Your task to perform on an android device: add a label to a message in the gmail app Image 0: 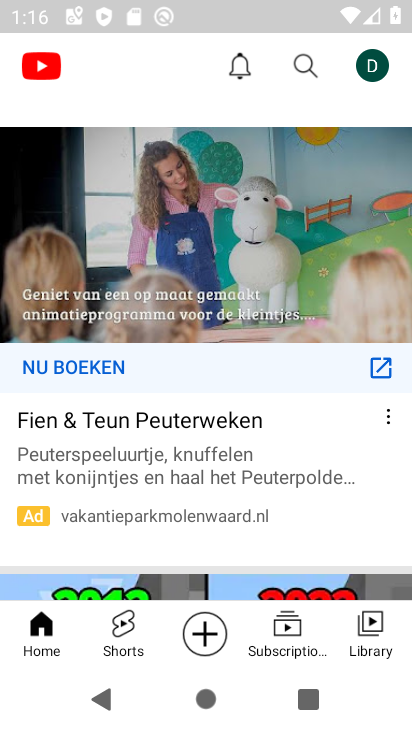
Step 0: press home button
Your task to perform on an android device: add a label to a message in the gmail app Image 1: 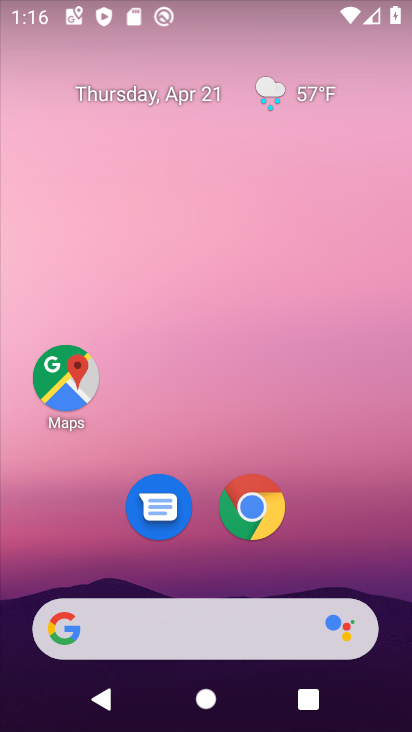
Step 1: drag from (325, 516) to (293, 45)
Your task to perform on an android device: add a label to a message in the gmail app Image 2: 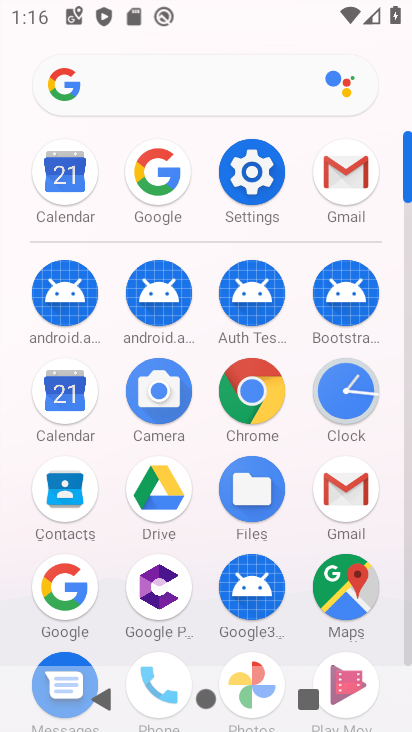
Step 2: click (345, 175)
Your task to perform on an android device: add a label to a message in the gmail app Image 3: 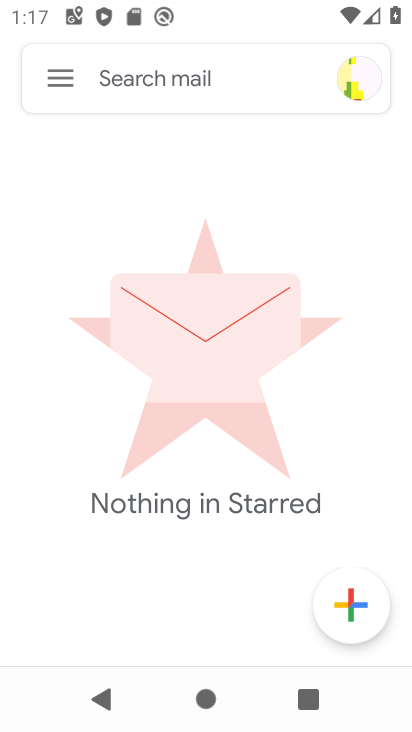
Step 3: click (59, 79)
Your task to perform on an android device: add a label to a message in the gmail app Image 4: 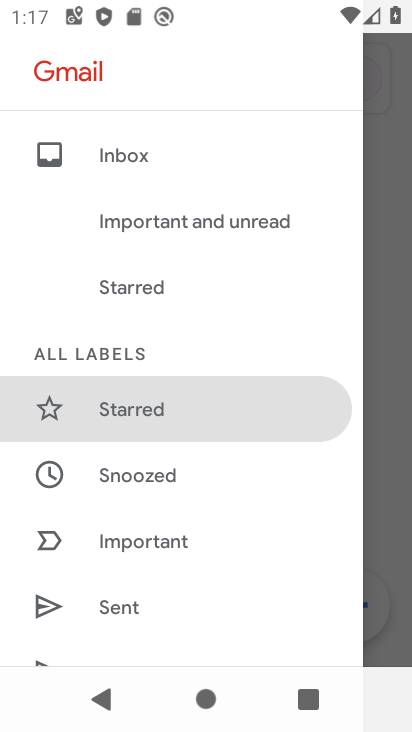
Step 4: click (109, 155)
Your task to perform on an android device: add a label to a message in the gmail app Image 5: 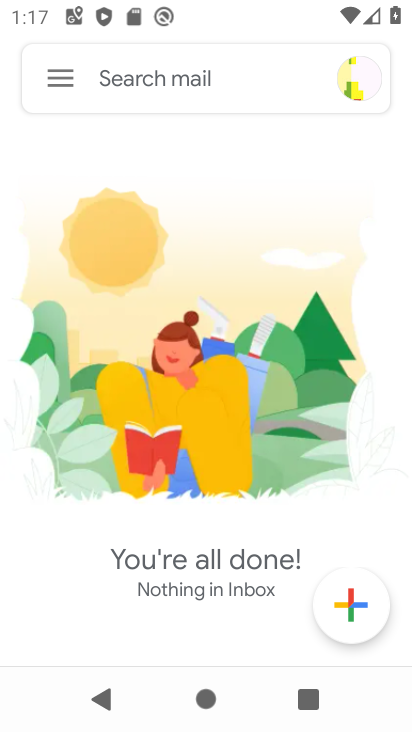
Step 5: click (64, 76)
Your task to perform on an android device: add a label to a message in the gmail app Image 6: 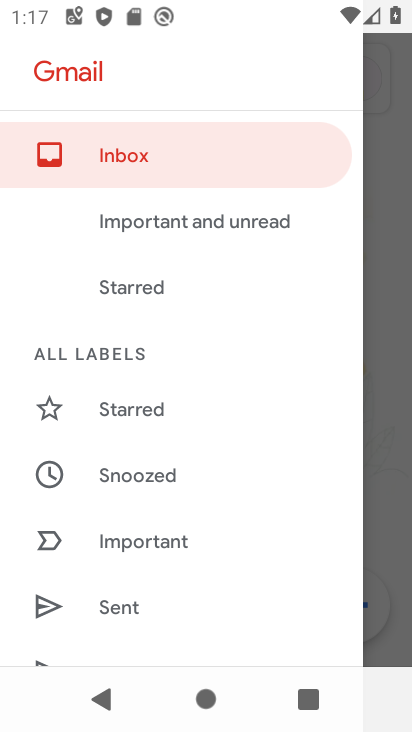
Step 6: drag from (195, 592) to (212, 422)
Your task to perform on an android device: add a label to a message in the gmail app Image 7: 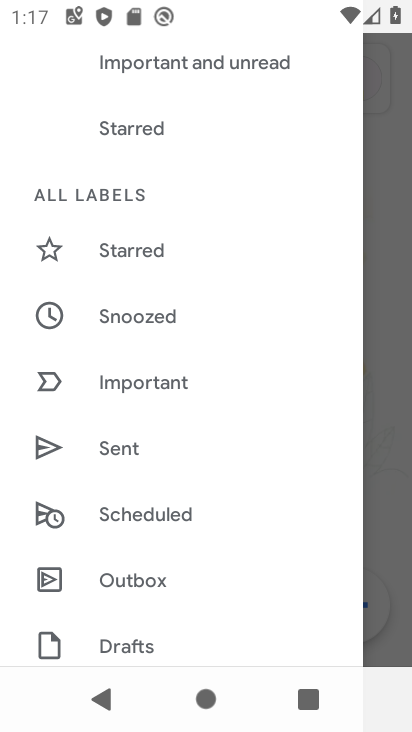
Step 7: drag from (175, 560) to (226, 438)
Your task to perform on an android device: add a label to a message in the gmail app Image 8: 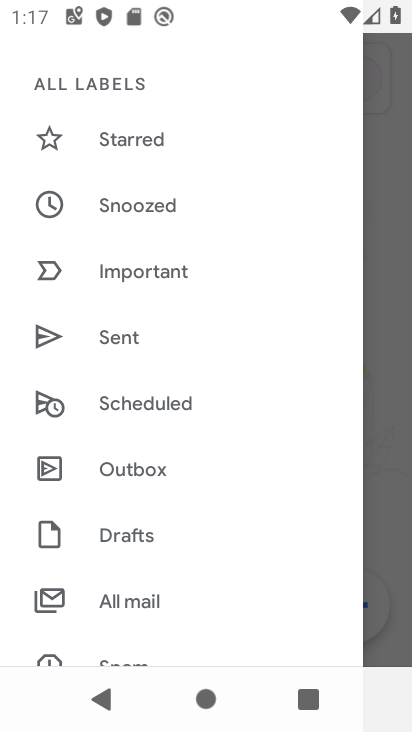
Step 8: drag from (177, 529) to (199, 434)
Your task to perform on an android device: add a label to a message in the gmail app Image 9: 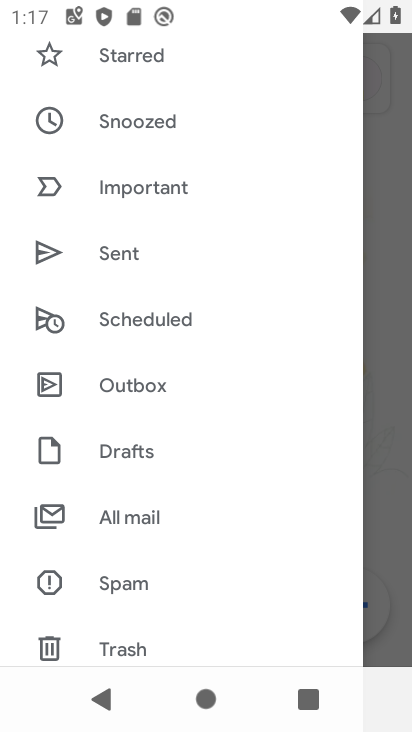
Step 9: click (140, 519)
Your task to perform on an android device: add a label to a message in the gmail app Image 10: 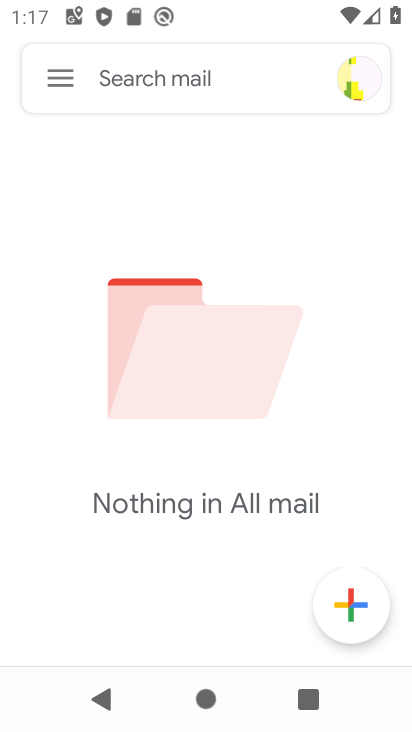
Step 10: task complete